Your task to perform on an android device: Open ESPN.com Image 0: 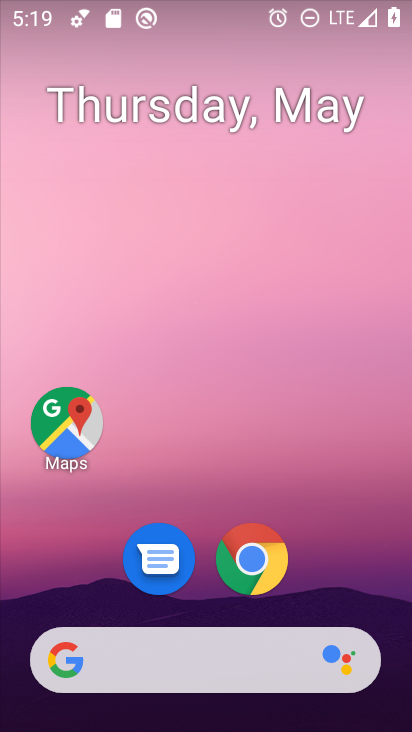
Step 0: click (276, 562)
Your task to perform on an android device: Open ESPN.com Image 1: 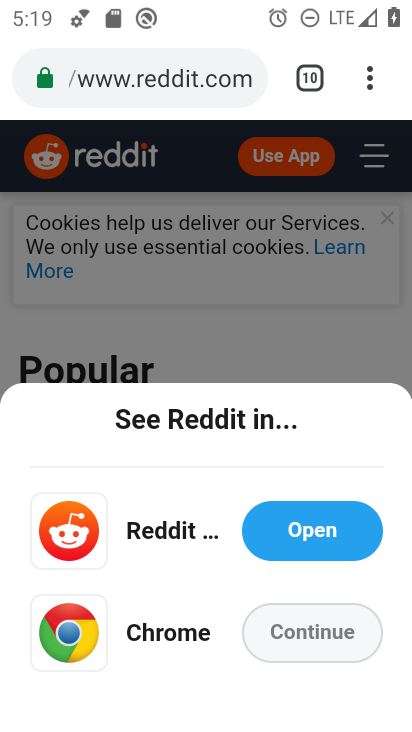
Step 1: click (318, 70)
Your task to perform on an android device: Open ESPN.com Image 2: 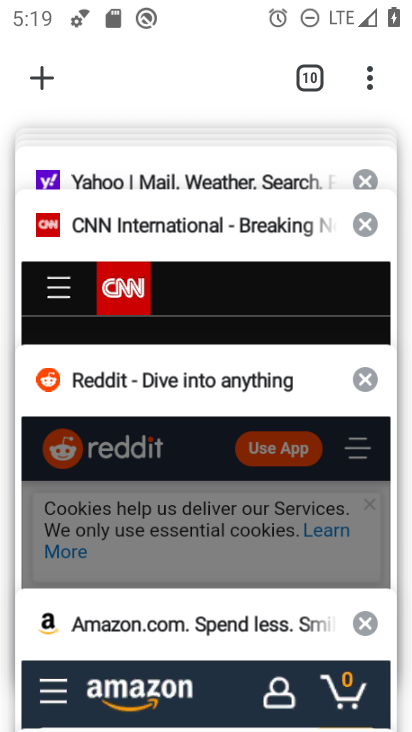
Step 2: drag from (176, 213) to (150, 696)
Your task to perform on an android device: Open ESPN.com Image 3: 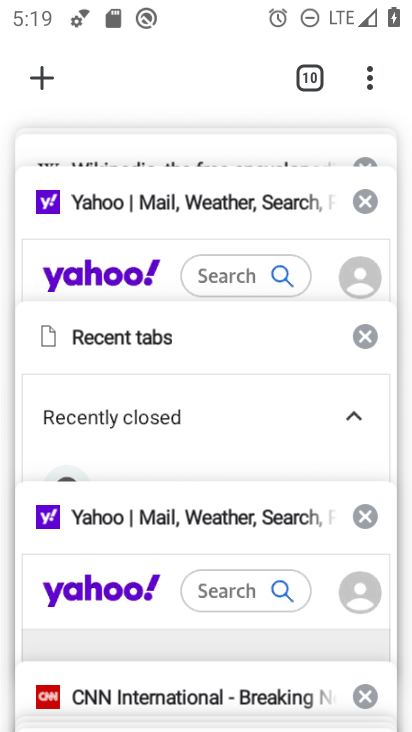
Step 3: drag from (170, 216) to (159, 639)
Your task to perform on an android device: Open ESPN.com Image 4: 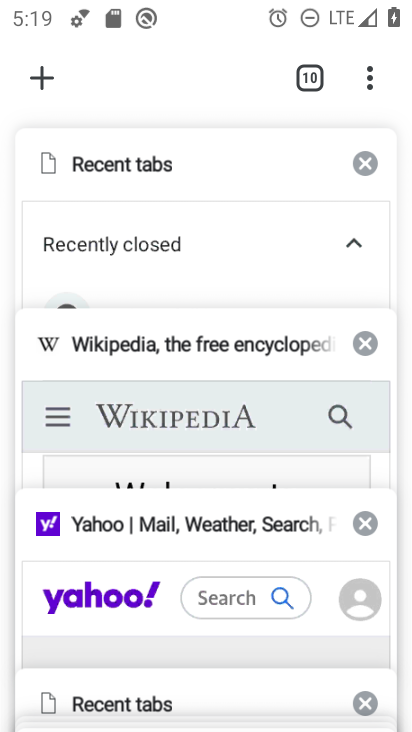
Step 4: click (33, 80)
Your task to perform on an android device: Open ESPN.com Image 5: 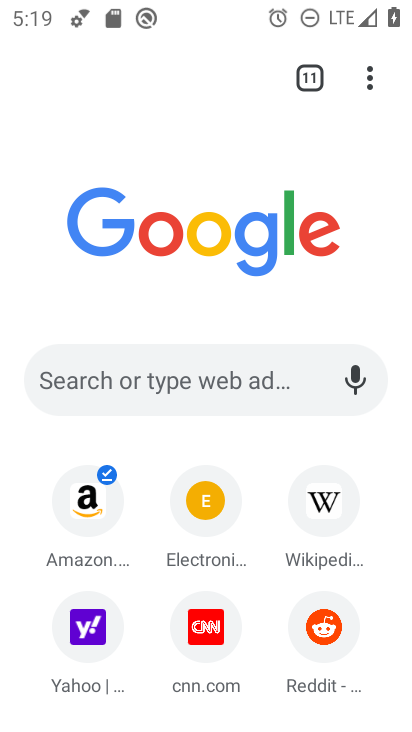
Step 5: click (154, 369)
Your task to perform on an android device: Open ESPN.com Image 6: 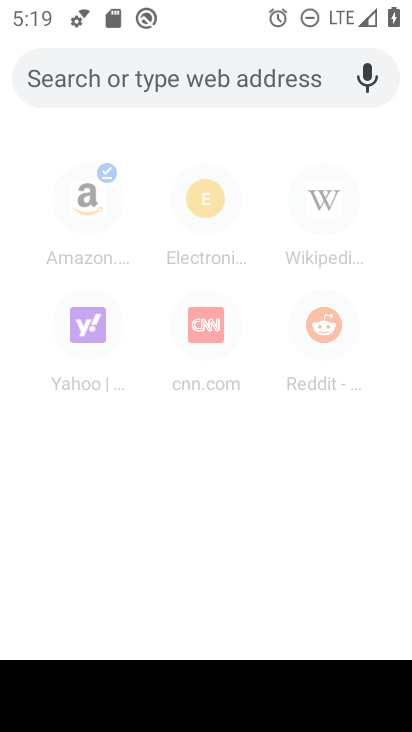
Step 6: type "ESPN.com"
Your task to perform on an android device: Open ESPN.com Image 7: 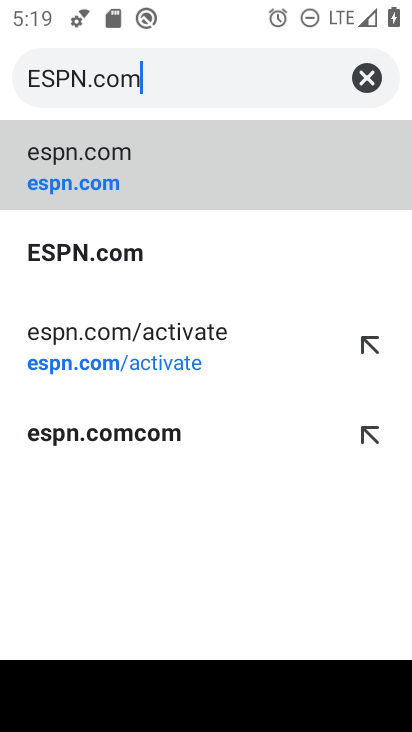
Step 7: click (218, 192)
Your task to perform on an android device: Open ESPN.com Image 8: 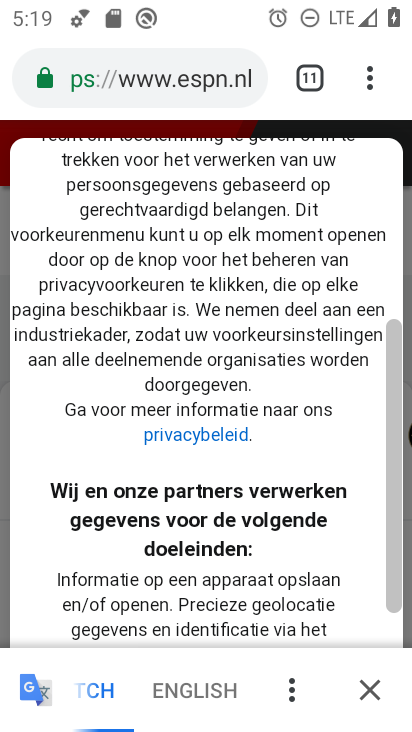
Step 8: task complete